Your task to perform on an android device: turn off sleep mode Image 0: 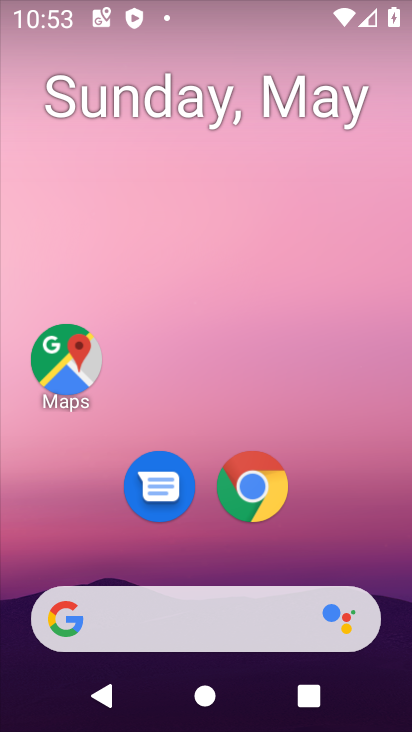
Step 0: drag from (302, 543) to (269, 159)
Your task to perform on an android device: turn off sleep mode Image 1: 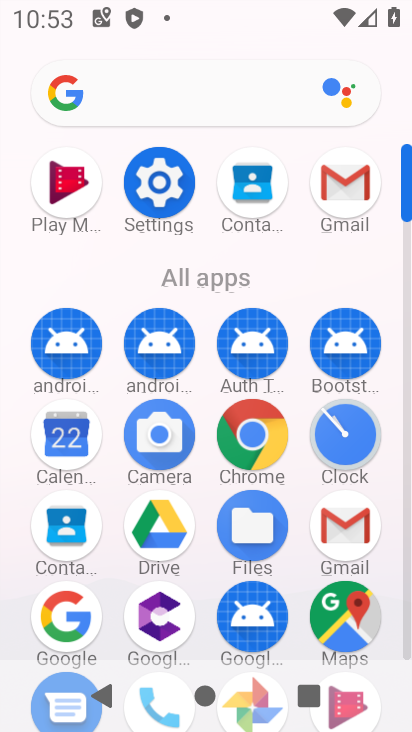
Step 1: task complete